Your task to perform on an android device: toggle notifications settings in the gmail app Image 0: 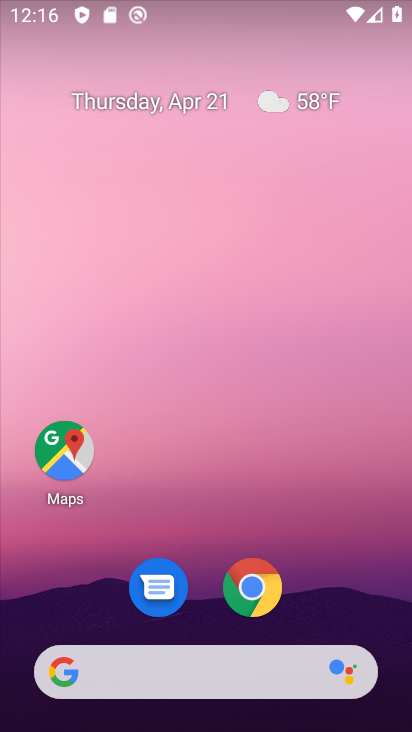
Step 0: click (267, 495)
Your task to perform on an android device: toggle notifications settings in the gmail app Image 1: 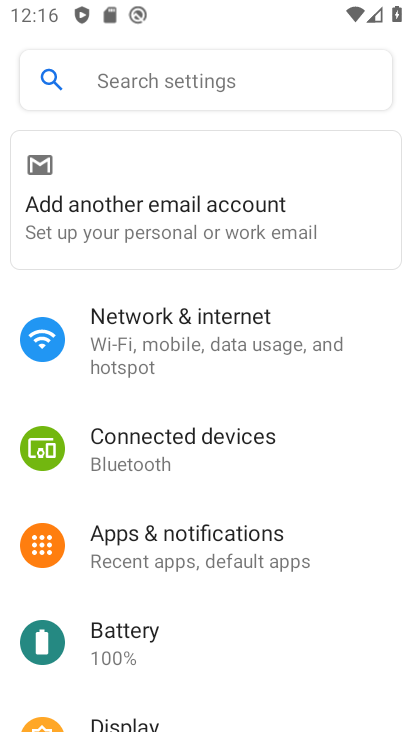
Step 1: press home button
Your task to perform on an android device: toggle notifications settings in the gmail app Image 2: 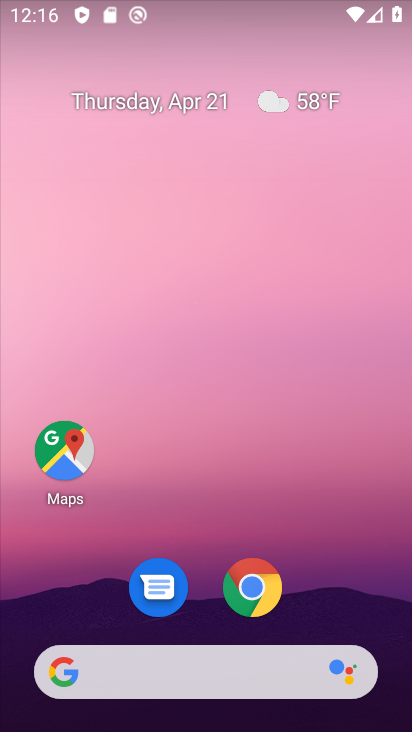
Step 2: drag from (202, 601) to (311, 45)
Your task to perform on an android device: toggle notifications settings in the gmail app Image 3: 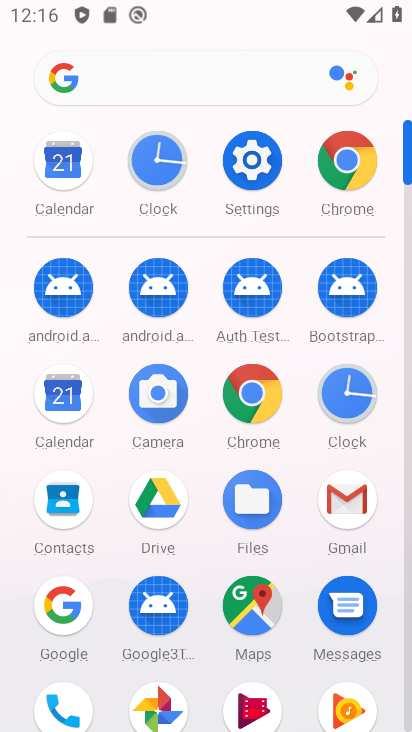
Step 3: click (353, 491)
Your task to perform on an android device: toggle notifications settings in the gmail app Image 4: 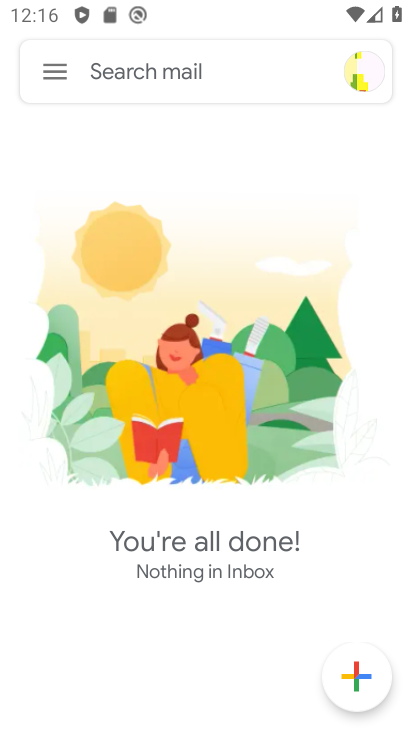
Step 4: click (49, 82)
Your task to perform on an android device: toggle notifications settings in the gmail app Image 5: 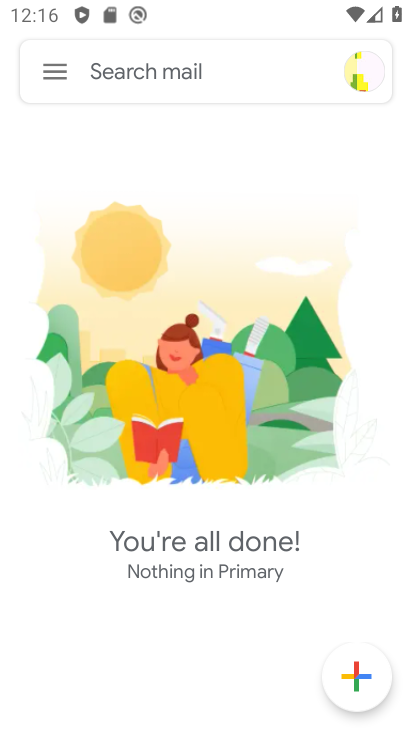
Step 5: click (50, 68)
Your task to perform on an android device: toggle notifications settings in the gmail app Image 6: 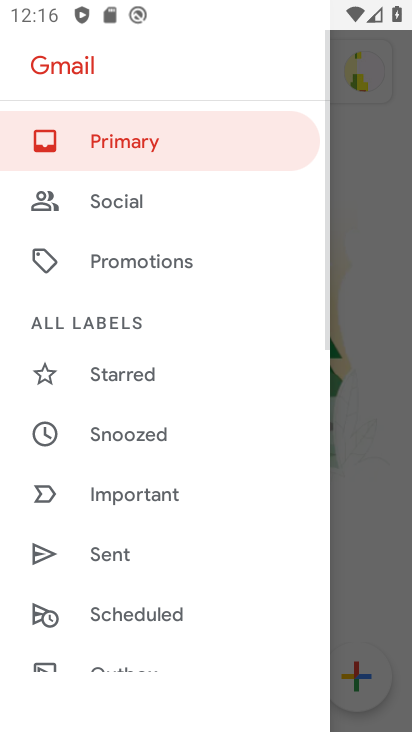
Step 6: drag from (115, 485) to (169, 188)
Your task to perform on an android device: toggle notifications settings in the gmail app Image 7: 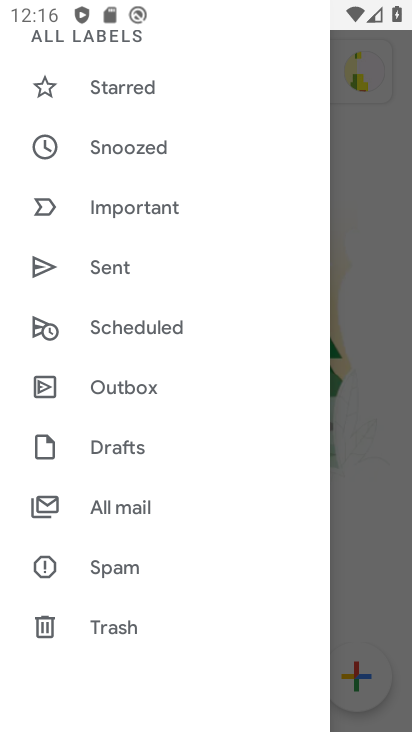
Step 7: drag from (100, 589) to (228, 62)
Your task to perform on an android device: toggle notifications settings in the gmail app Image 8: 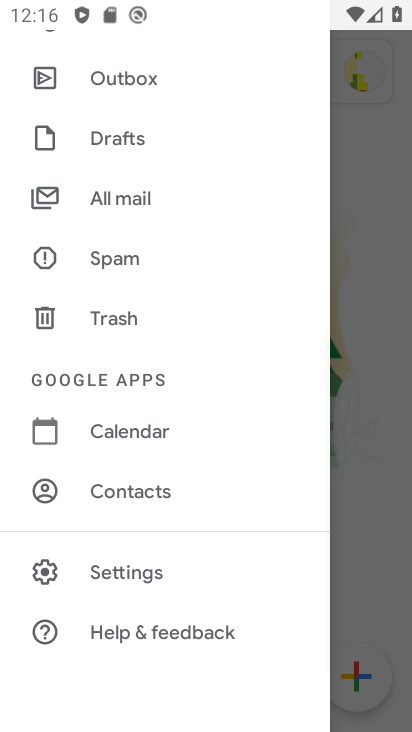
Step 8: click (126, 563)
Your task to perform on an android device: toggle notifications settings in the gmail app Image 9: 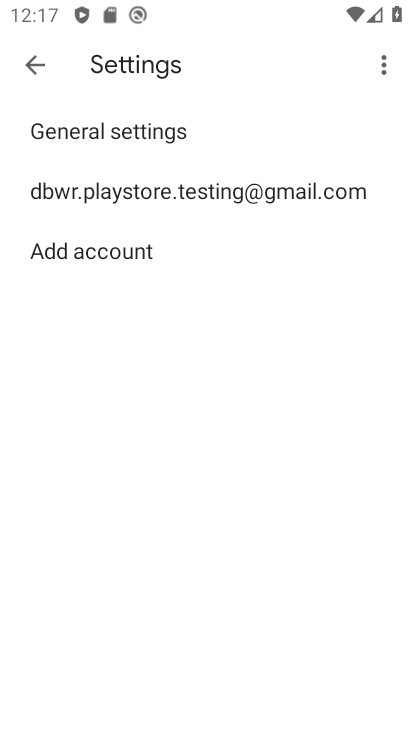
Step 9: click (152, 129)
Your task to perform on an android device: toggle notifications settings in the gmail app Image 10: 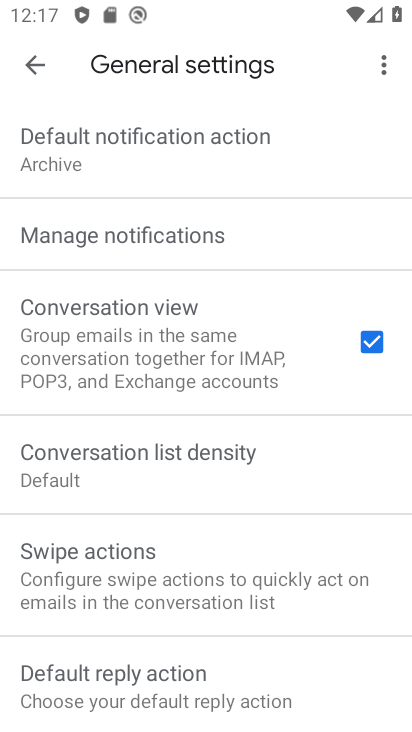
Step 10: click (160, 238)
Your task to perform on an android device: toggle notifications settings in the gmail app Image 11: 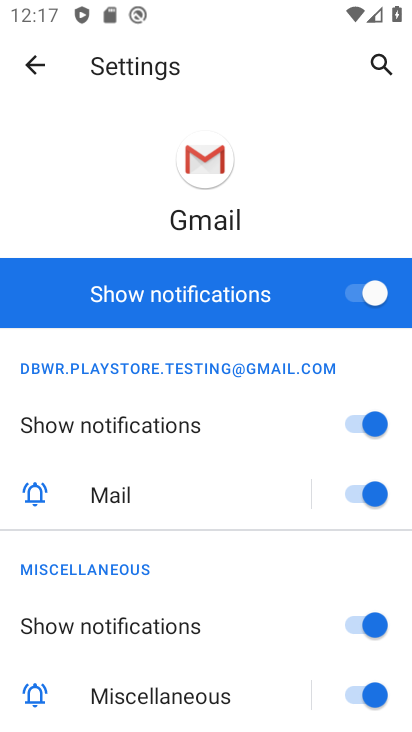
Step 11: click (356, 284)
Your task to perform on an android device: toggle notifications settings in the gmail app Image 12: 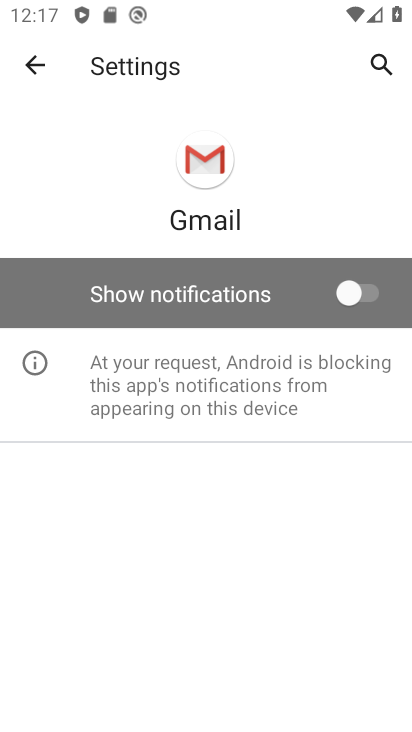
Step 12: task complete